Your task to perform on an android device: Show me productivity apps on the Play Store Image 0: 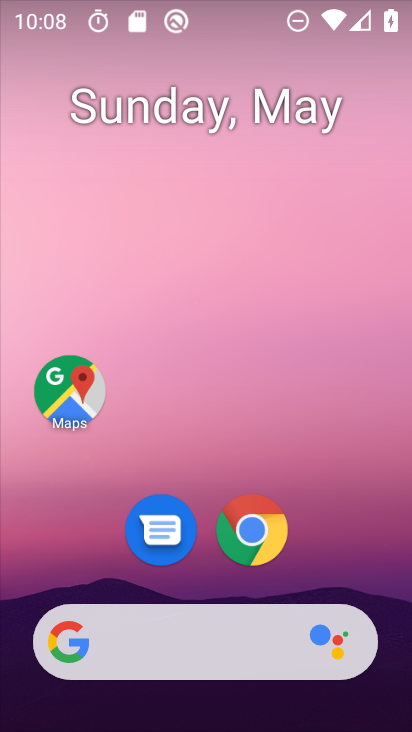
Step 0: press home button
Your task to perform on an android device: Show me productivity apps on the Play Store Image 1: 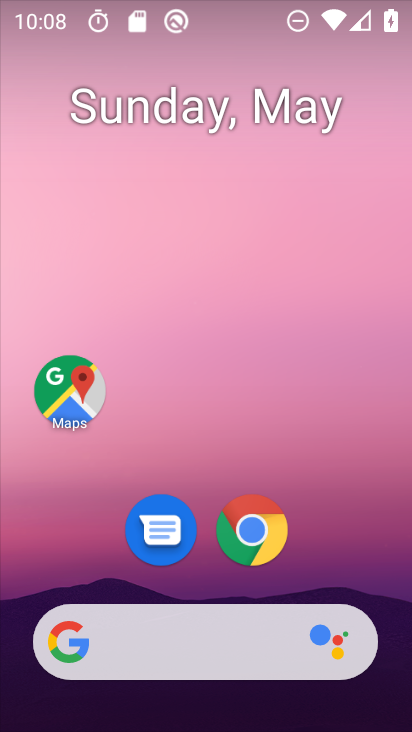
Step 1: drag from (191, 619) to (80, 211)
Your task to perform on an android device: Show me productivity apps on the Play Store Image 2: 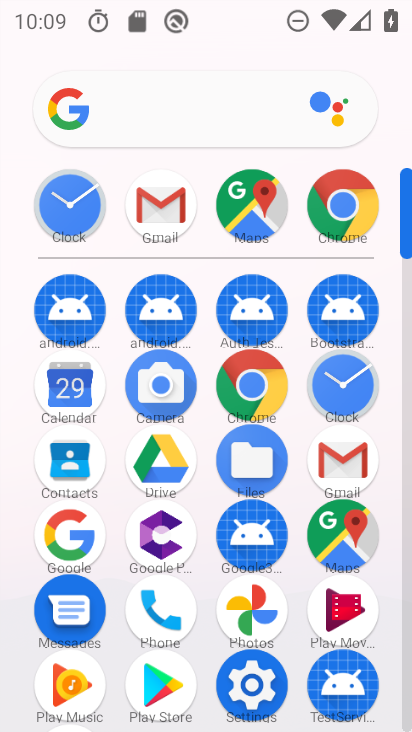
Step 2: click (164, 684)
Your task to perform on an android device: Show me productivity apps on the Play Store Image 3: 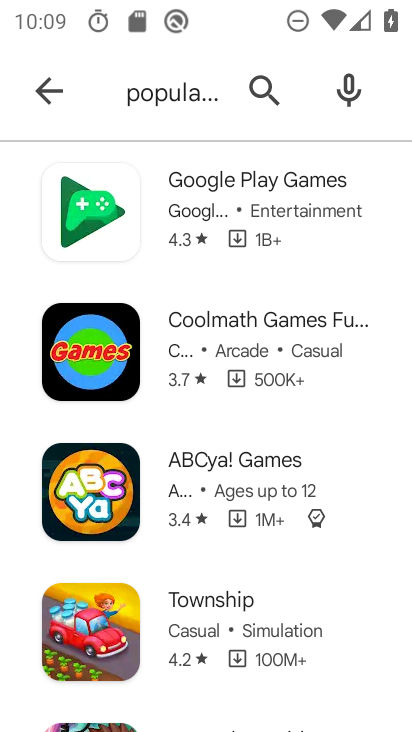
Step 3: click (255, 84)
Your task to perform on an android device: Show me productivity apps on the Play Store Image 4: 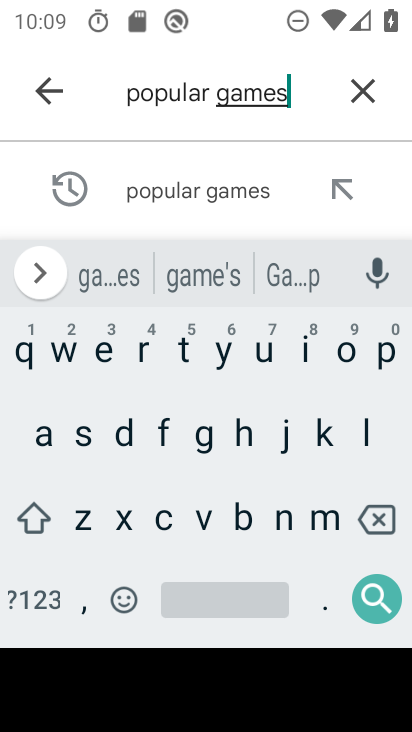
Step 4: click (361, 87)
Your task to perform on an android device: Show me productivity apps on the Play Store Image 5: 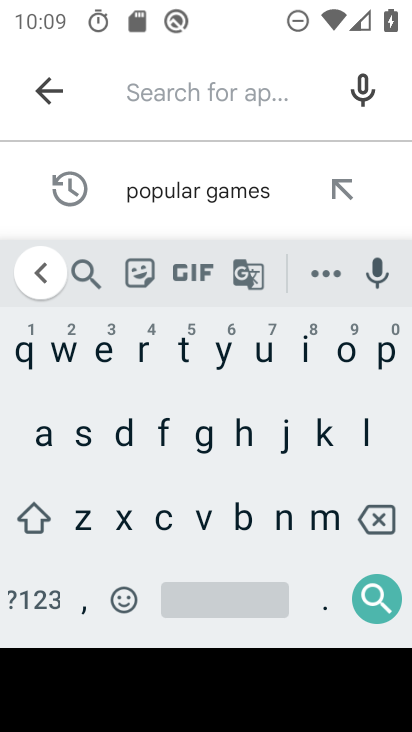
Step 5: drag from (223, 208) to (207, 117)
Your task to perform on an android device: Show me productivity apps on the Play Store Image 6: 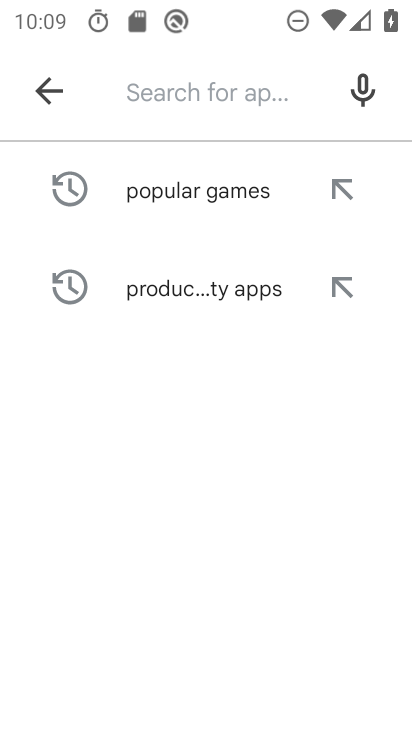
Step 6: click (183, 275)
Your task to perform on an android device: Show me productivity apps on the Play Store Image 7: 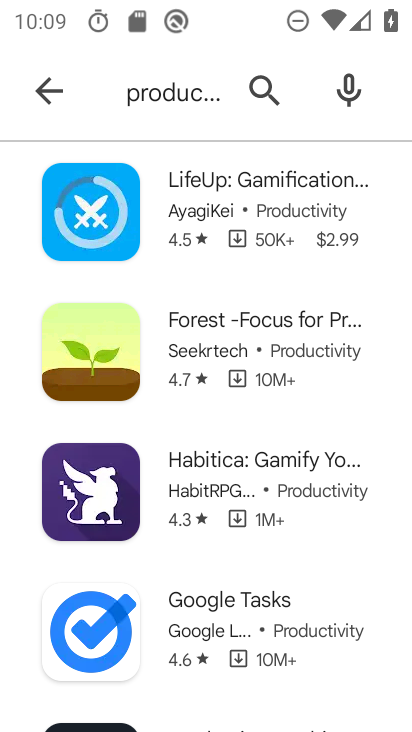
Step 7: task complete